Your task to perform on an android device: Open Youtube and go to the subscriptions tab Image 0: 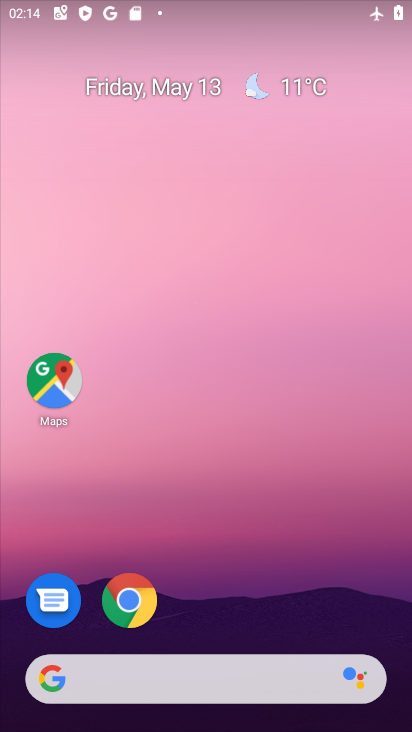
Step 0: drag from (230, 635) to (280, 171)
Your task to perform on an android device: Open Youtube and go to the subscriptions tab Image 1: 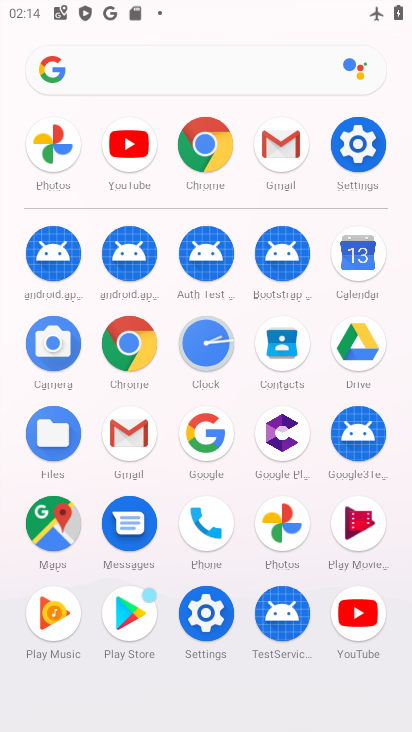
Step 1: click (359, 602)
Your task to perform on an android device: Open Youtube and go to the subscriptions tab Image 2: 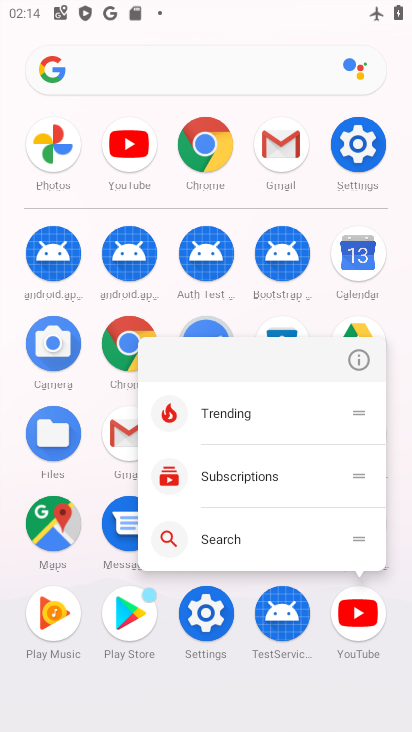
Step 2: click (357, 363)
Your task to perform on an android device: Open Youtube and go to the subscriptions tab Image 3: 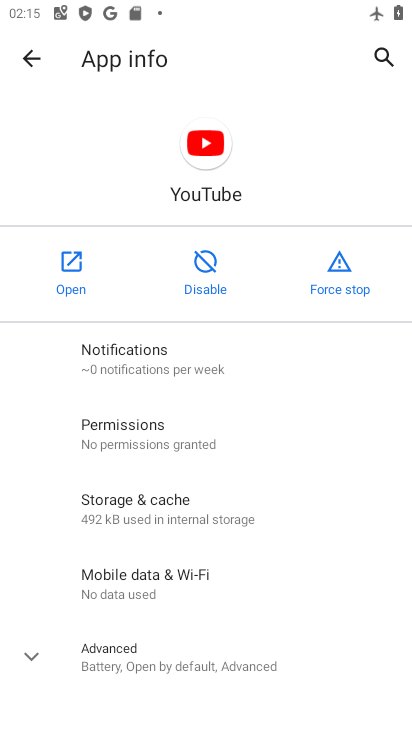
Step 3: click (65, 250)
Your task to perform on an android device: Open Youtube and go to the subscriptions tab Image 4: 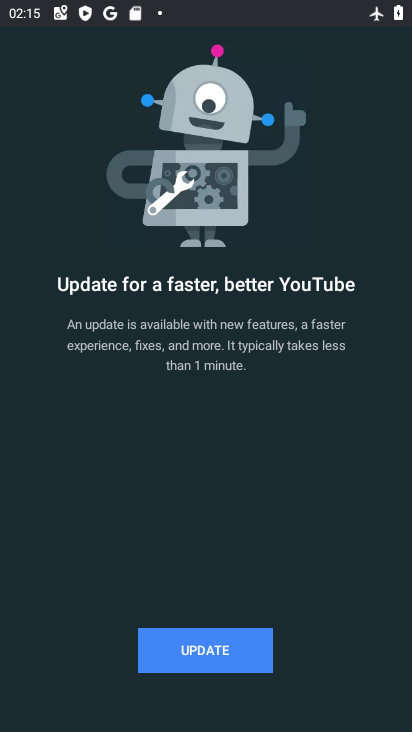
Step 4: task complete